Your task to perform on an android device: turn notification dots off Image 0: 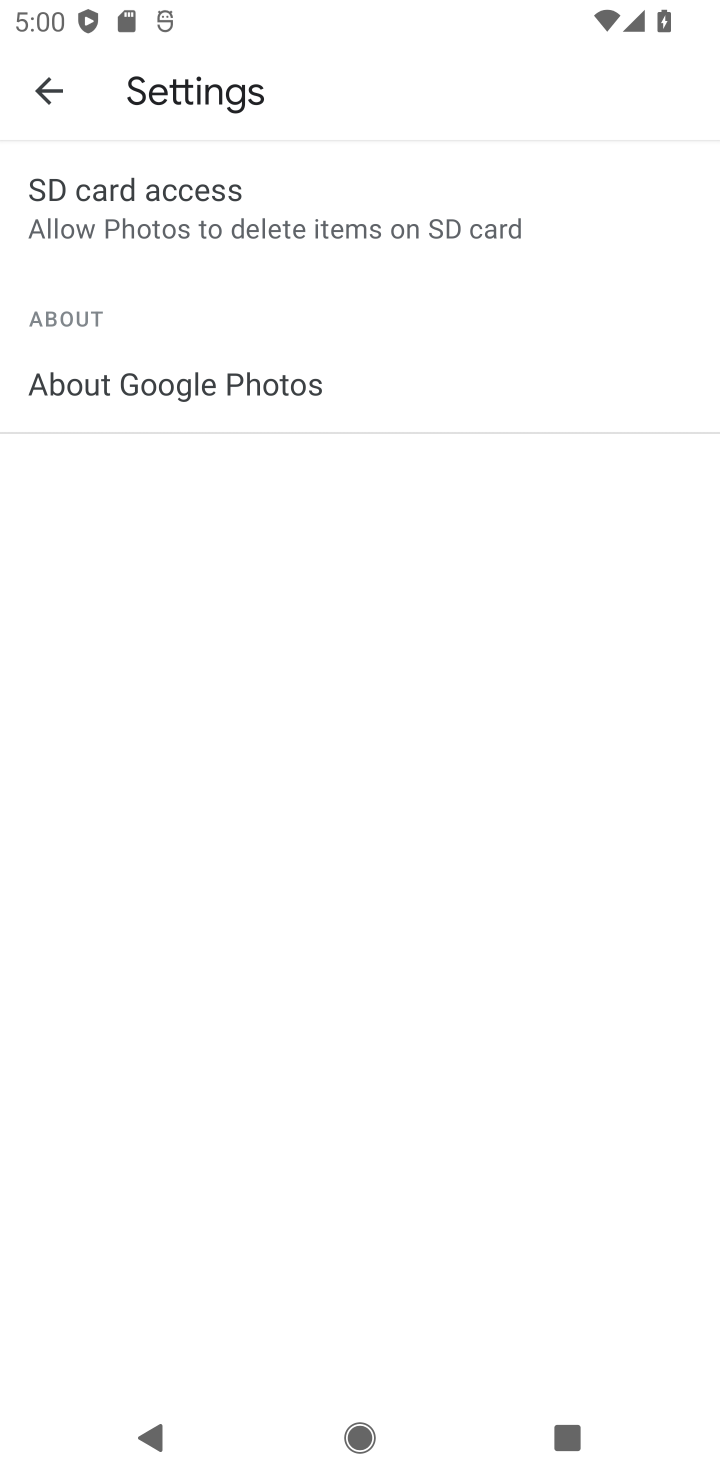
Step 0: press home button
Your task to perform on an android device: turn notification dots off Image 1: 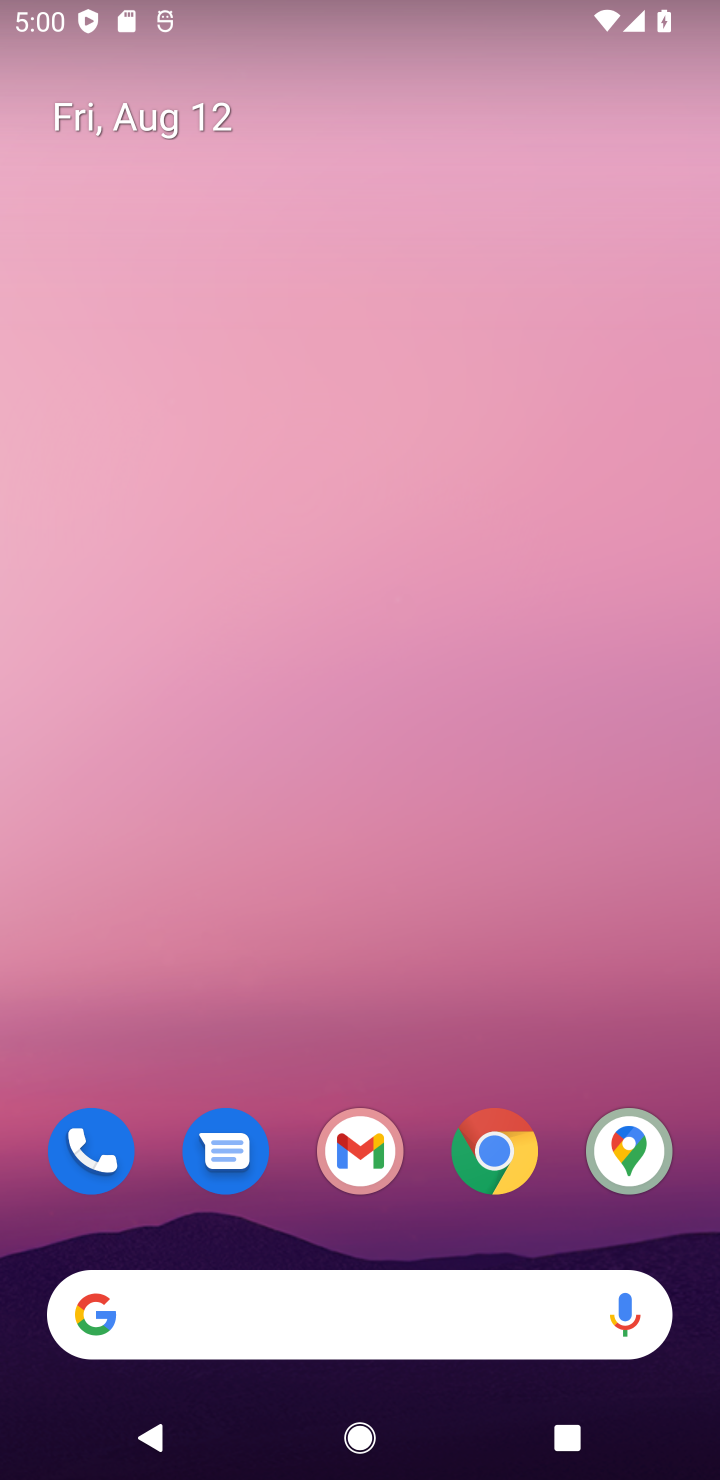
Step 1: drag from (605, 980) to (594, 62)
Your task to perform on an android device: turn notification dots off Image 2: 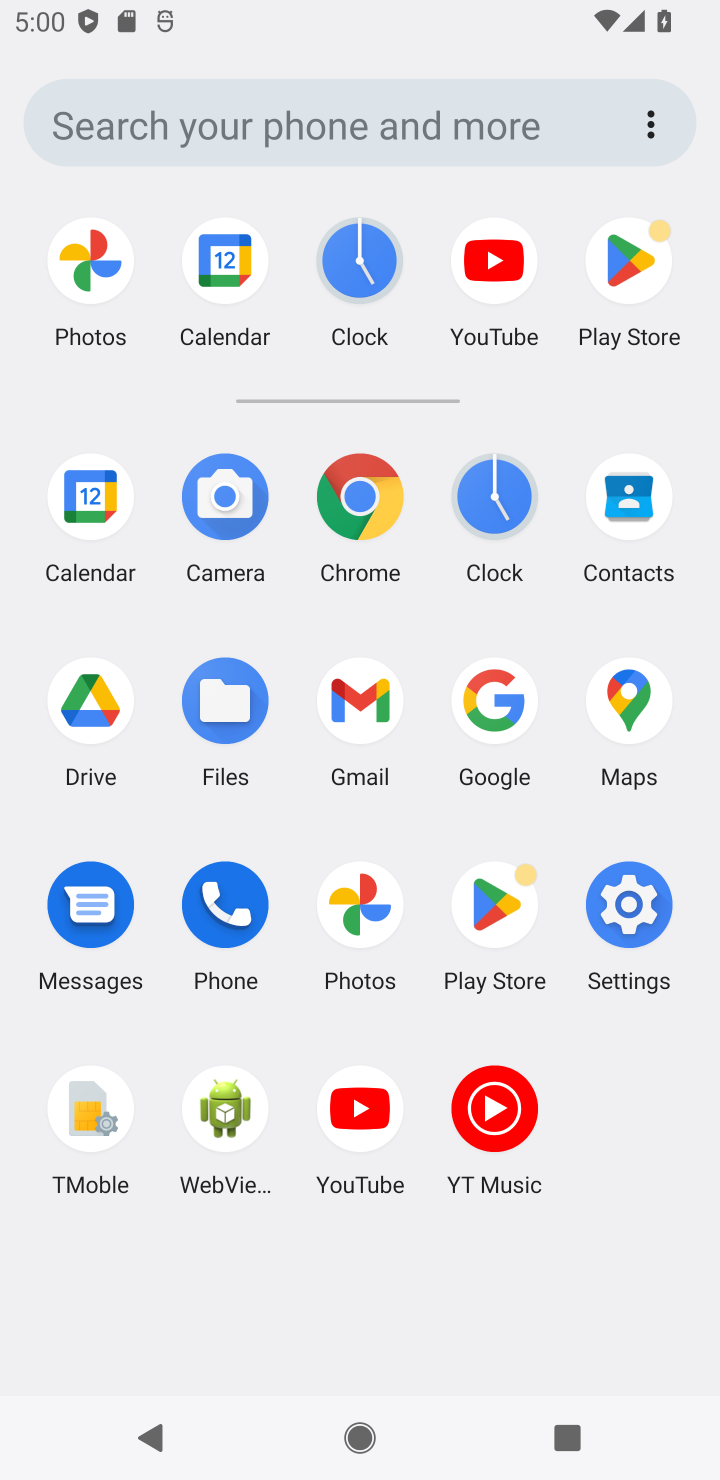
Step 2: click (663, 904)
Your task to perform on an android device: turn notification dots off Image 3: 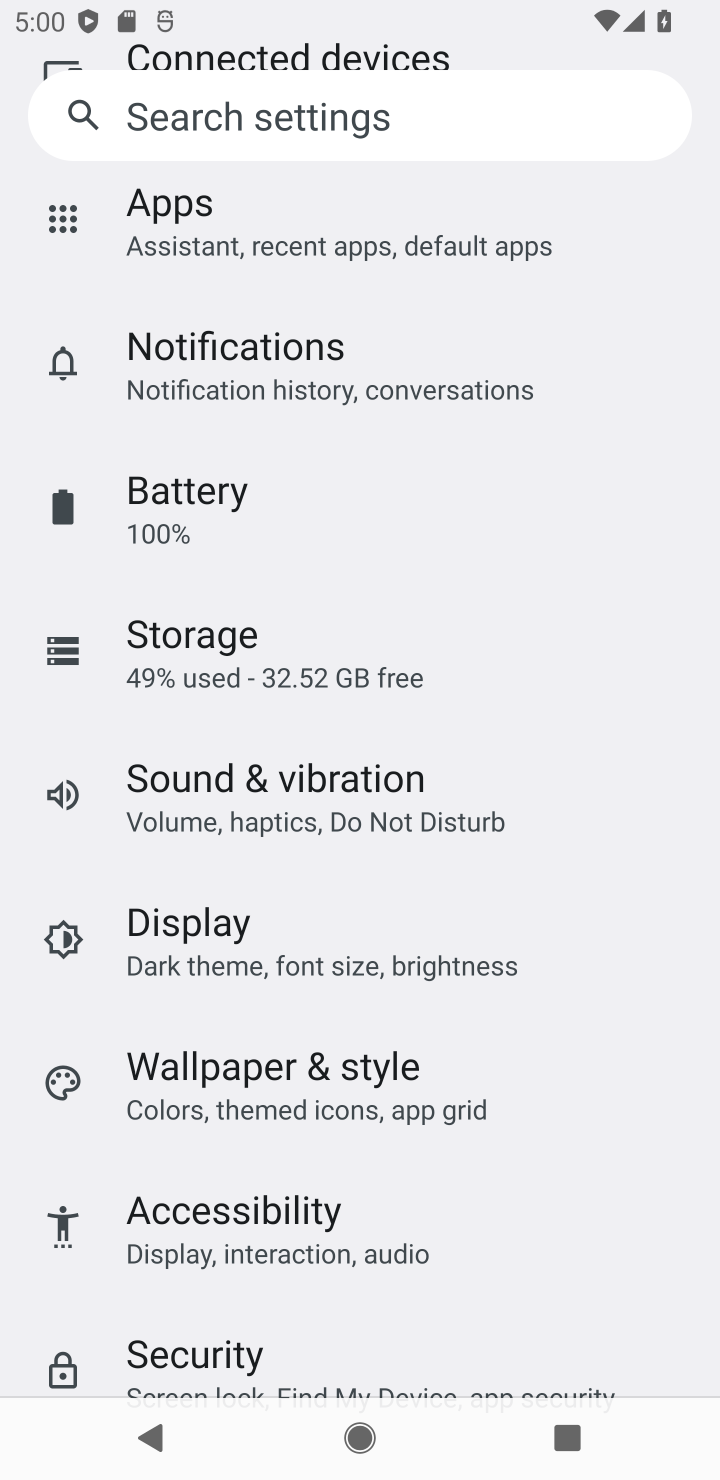
Step 3: click (372, 393)
Your task to perform on an android device: turn notification dots off Image 4: 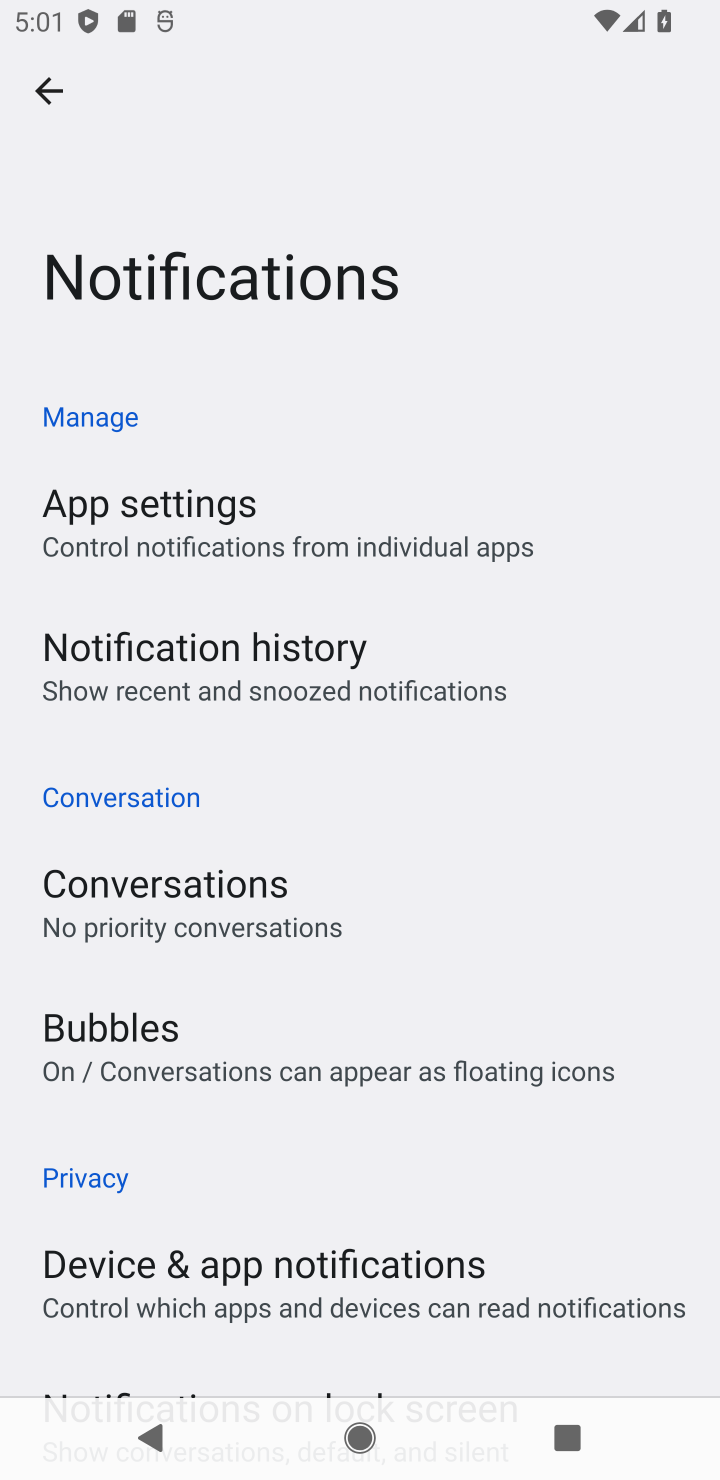
Step 4: click (362, 1259)
Your task to perform on an android device: turn notification dots off Image 5: 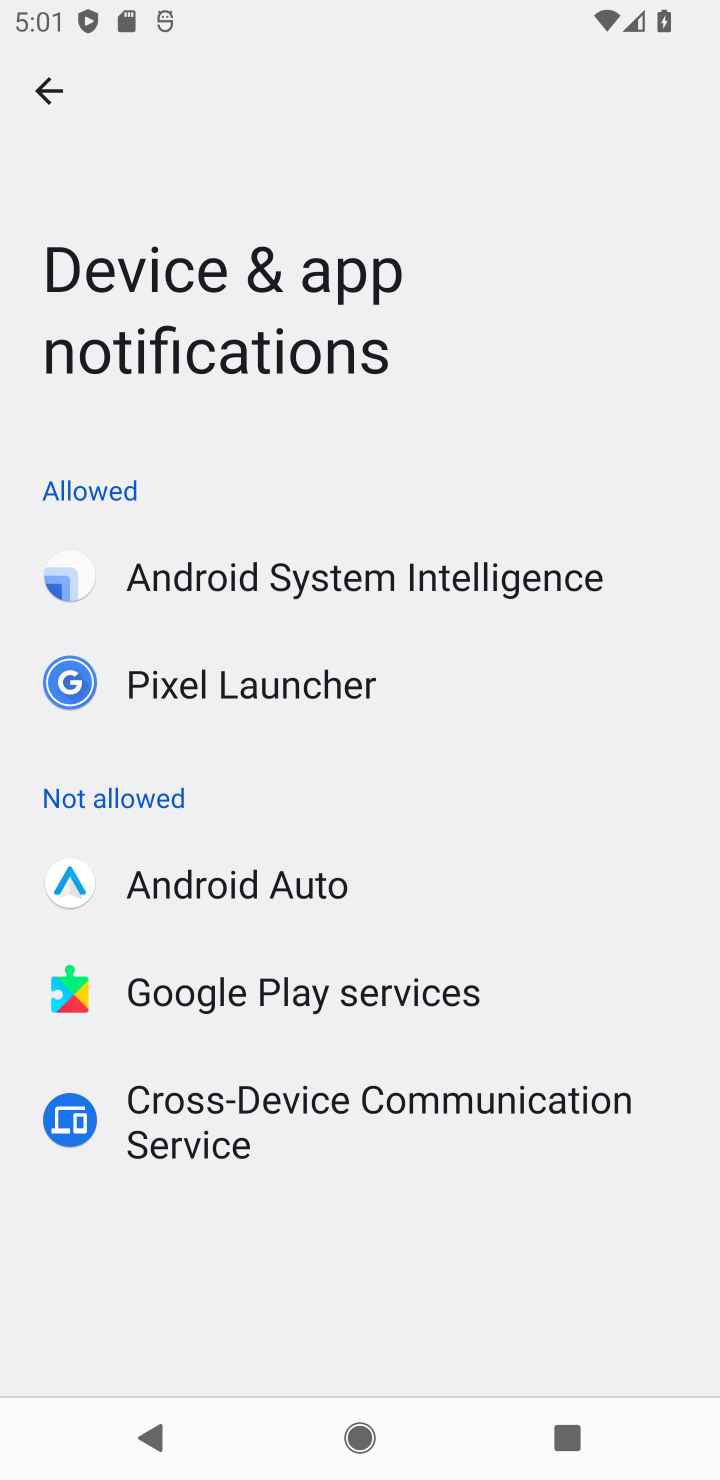
Step 5: click (64, 94)
Your task to perform on an android device: turn notification dots off Image 6: 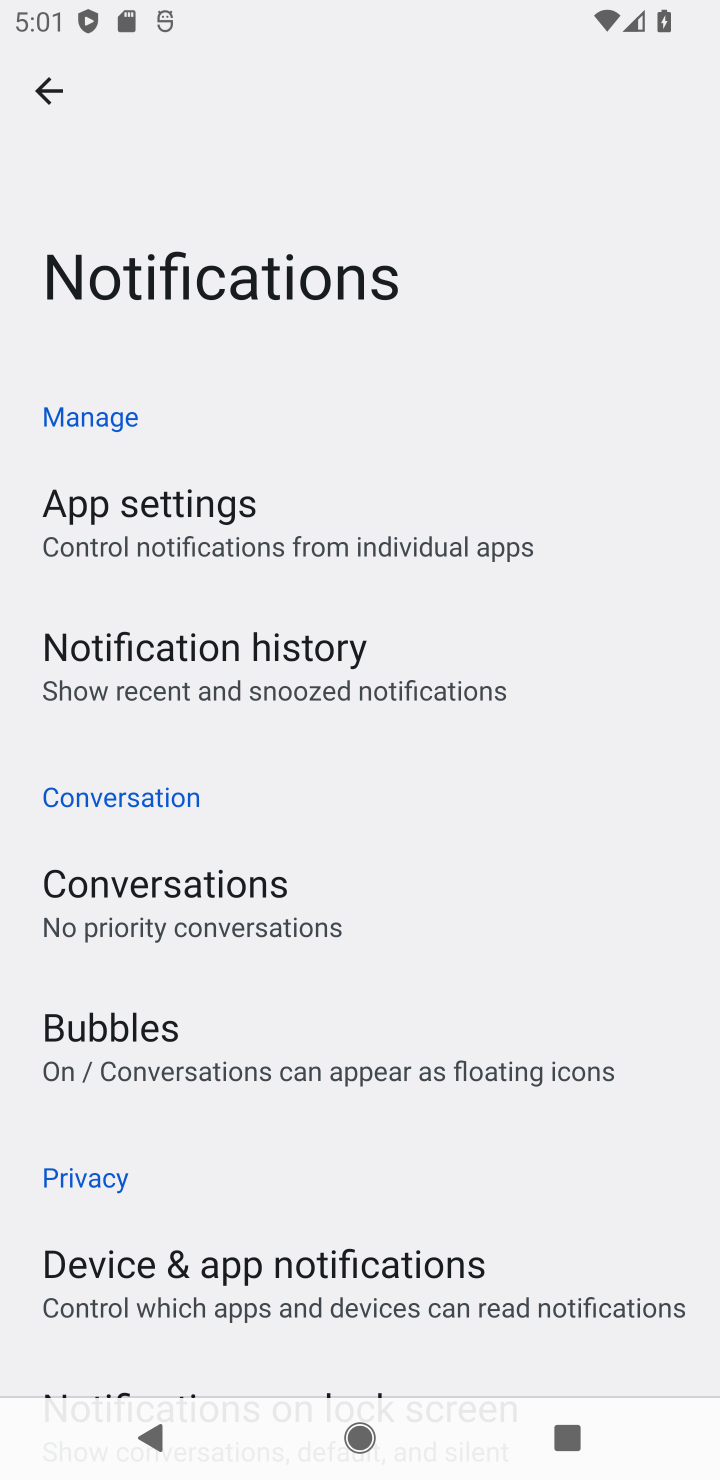
Step 6: drag from (361, 1248) to (454, 501)
Your task to perform on an android device: turn notification dots off Image 7: 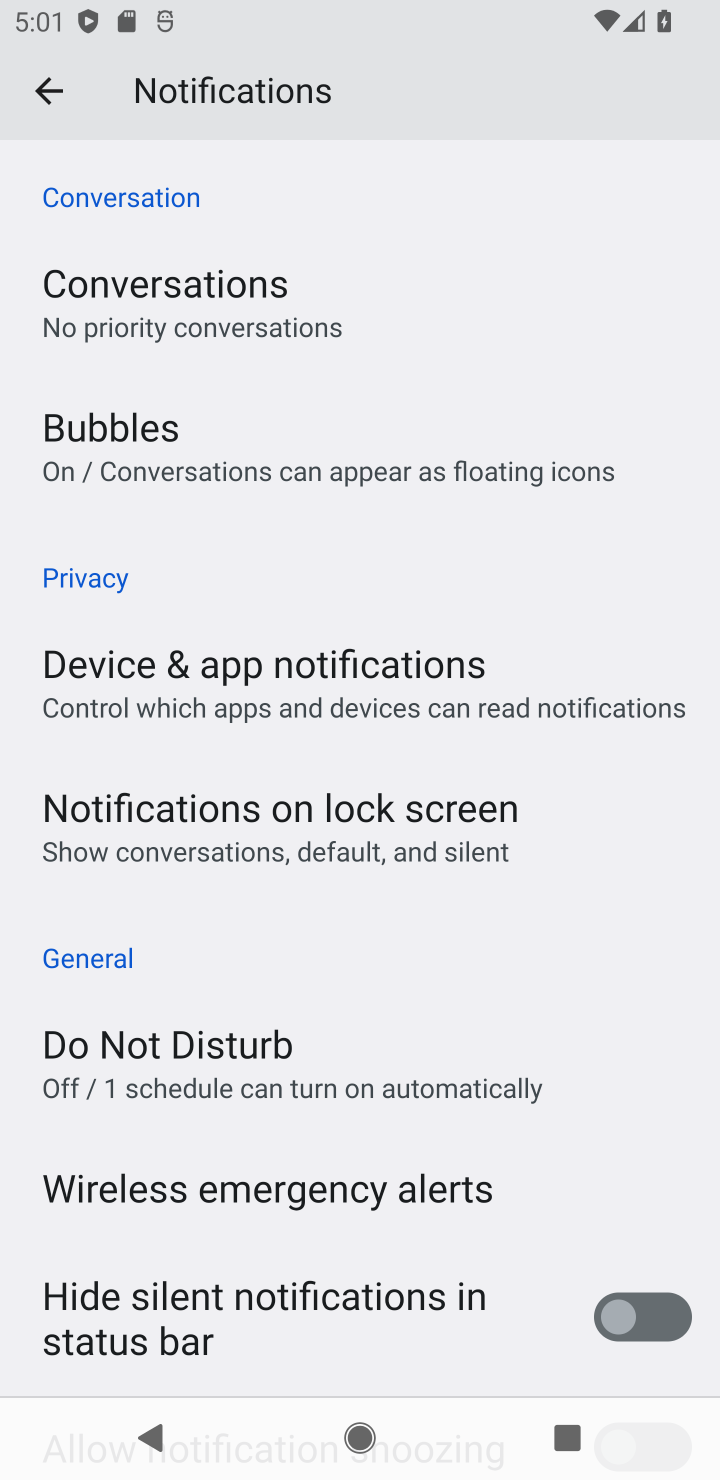
Step 7: drag from (605, 1011) to (658, 347)
Your task to perform on an android device: turn notification dots off Image 8: 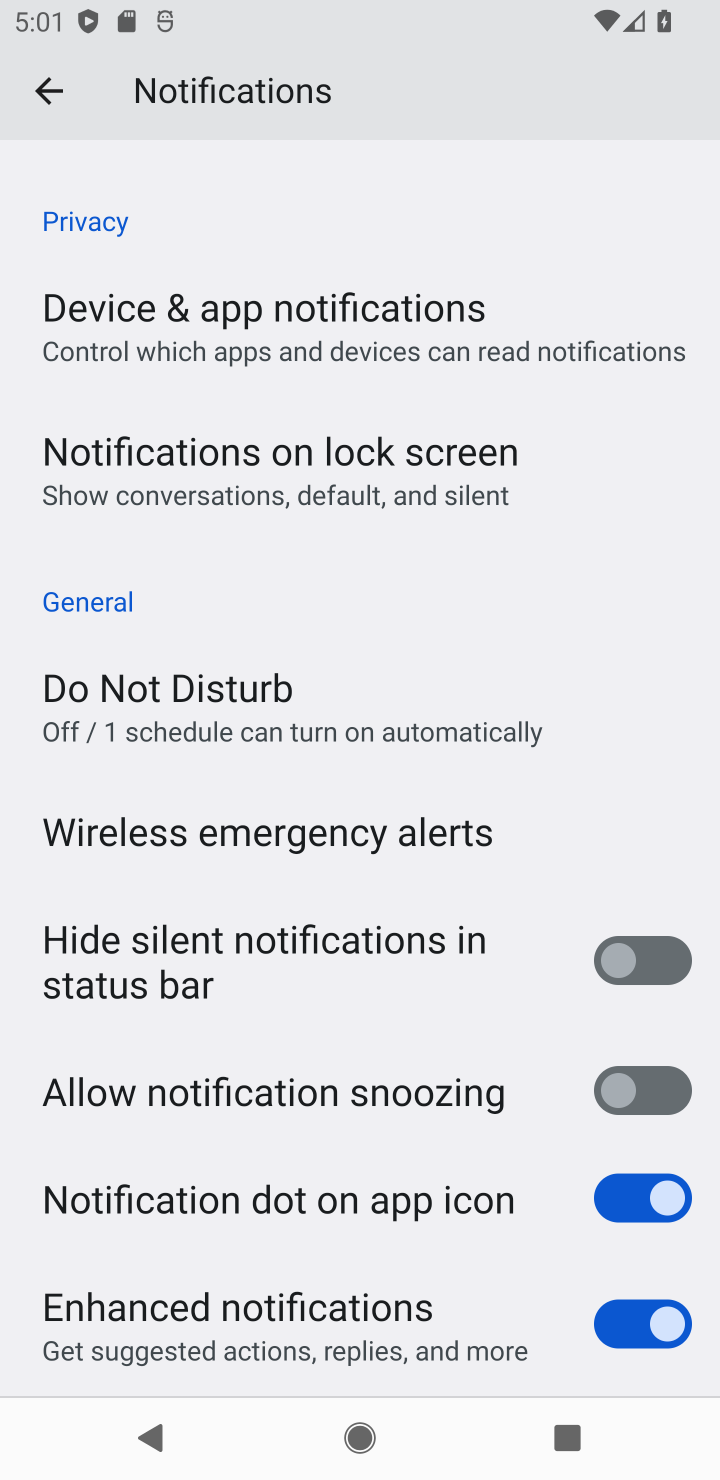
Step 8: click (636, 1204)
Your task to perform on an android device: turn notification dots off Image 9: 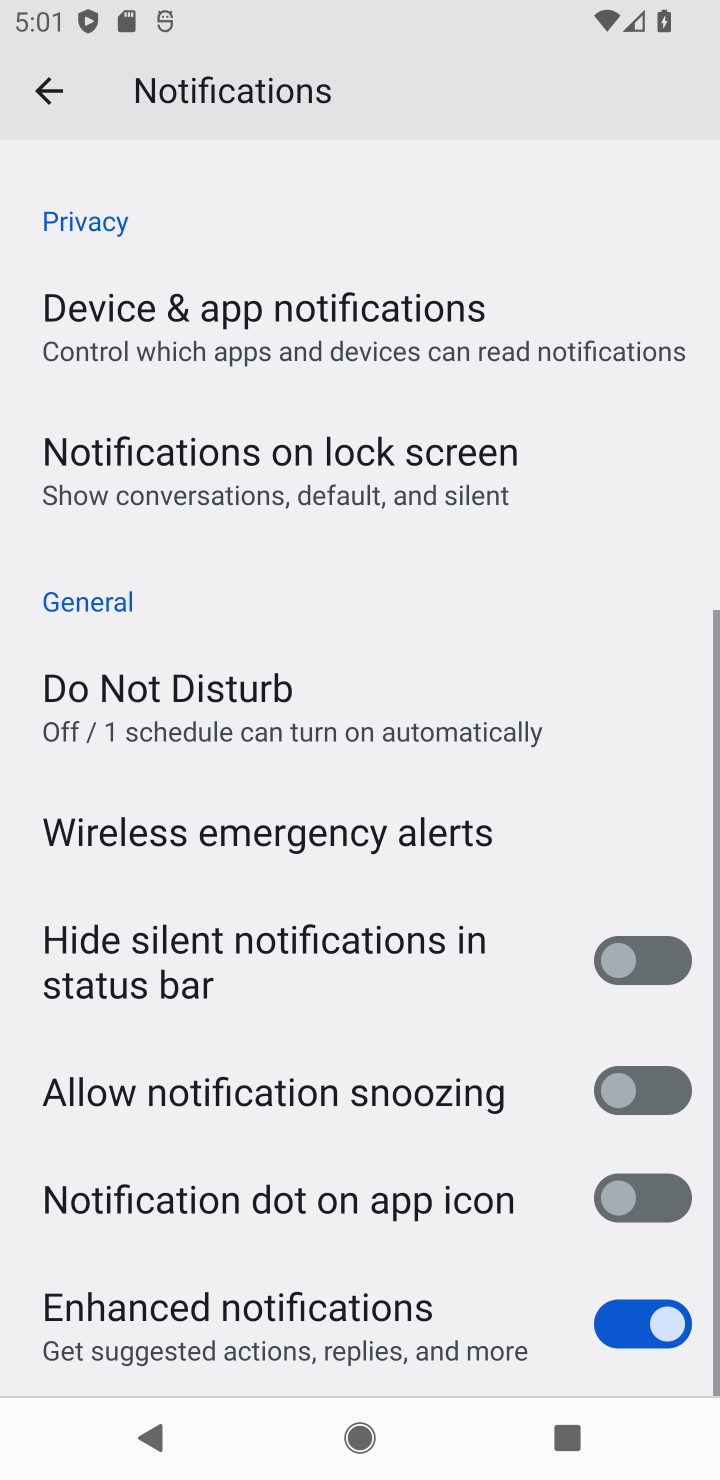
Step 9: task complete